Your task to perform on an android device: Go to calendar. Show me events next week Image 0: 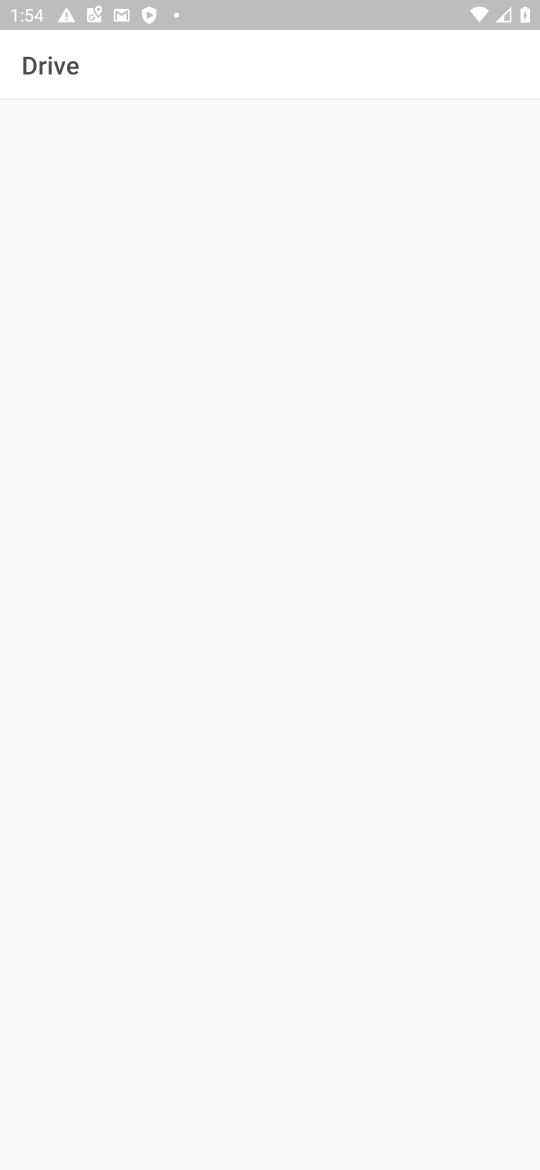
Step 0: drag from (350, 1037) to (337, 840)
Your task to perform on an android device: Go to calendar. Show me events next week Image 1: 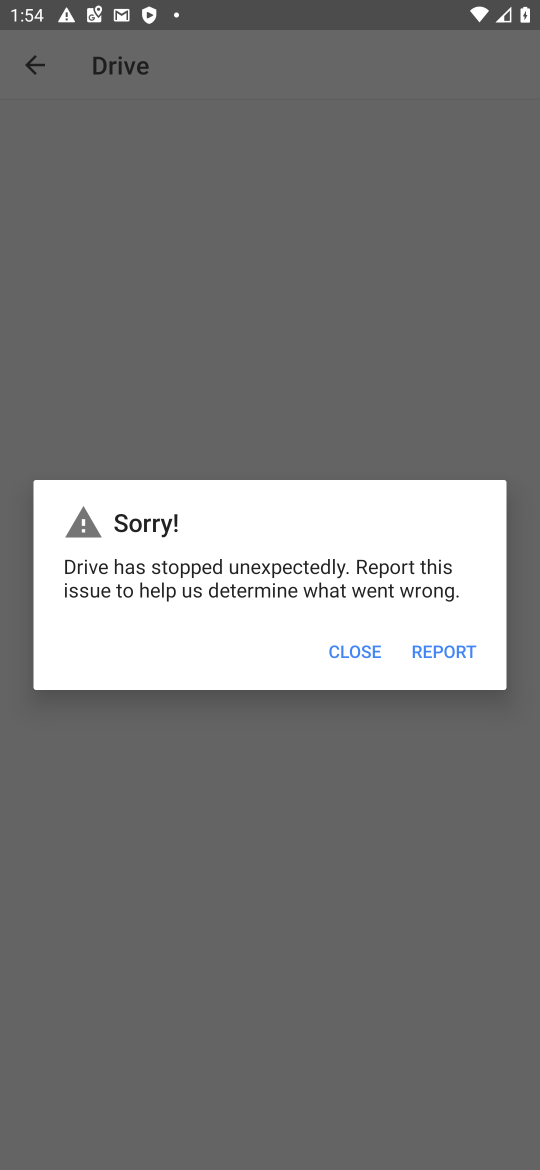
Step 1: click (371, 645)
Your task to perform on an android device: Go to calendar. Show me events next week Image 2: 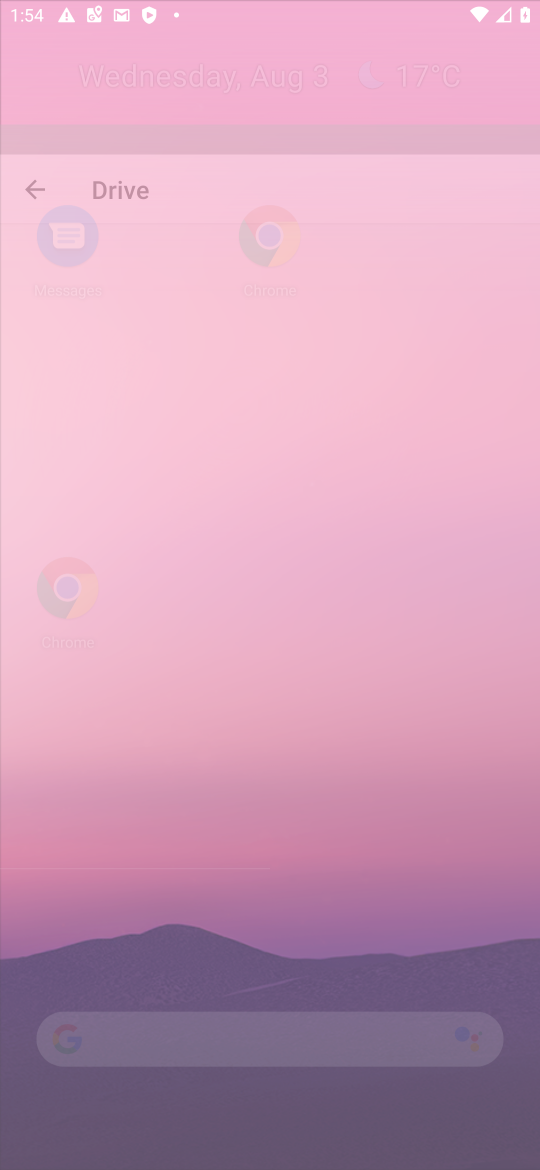
Step 2: press home button
Your task to perform on an android device: Go to calendar. Show me events next week Image 3: 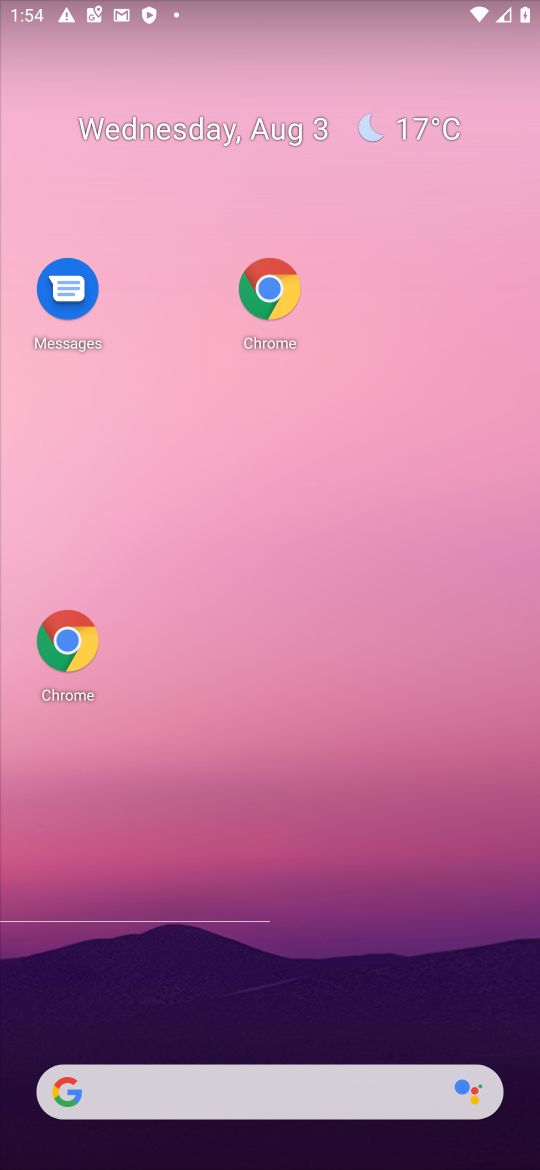
Step 3: drag from (343, 997) to (307, 324)
Your task to perform on an android device: Go to calendar. Show me events next week Image 4: 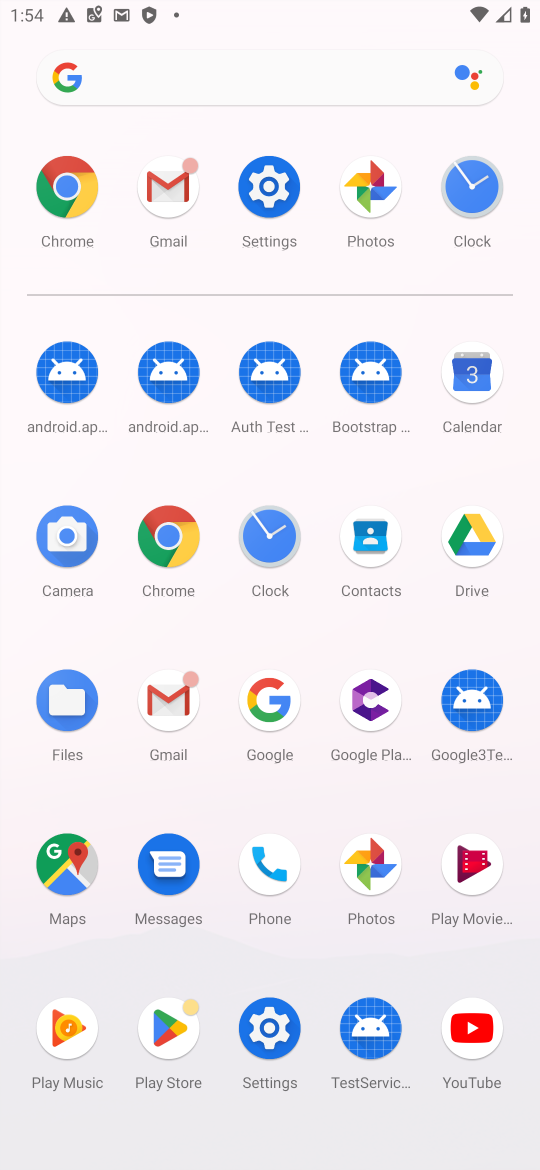
Step 4: click (476, 358)
Your task to perform on an android device: Go to calendar. Show me events next week Image 5: 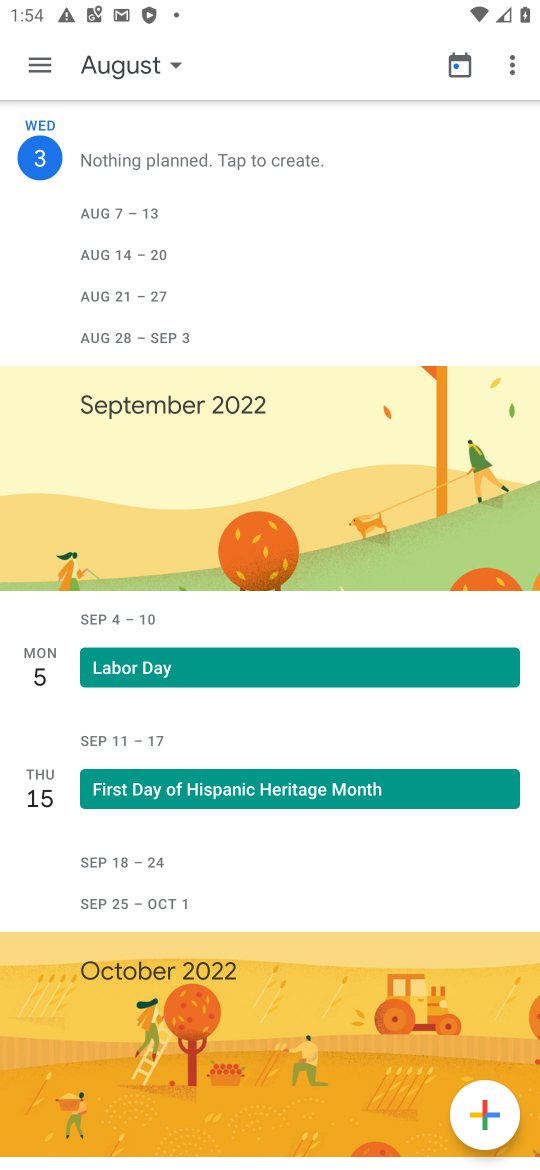
Step 5: task complete